Your task to perform on an android device: Open the calendar and show me this week's events? Image 0: 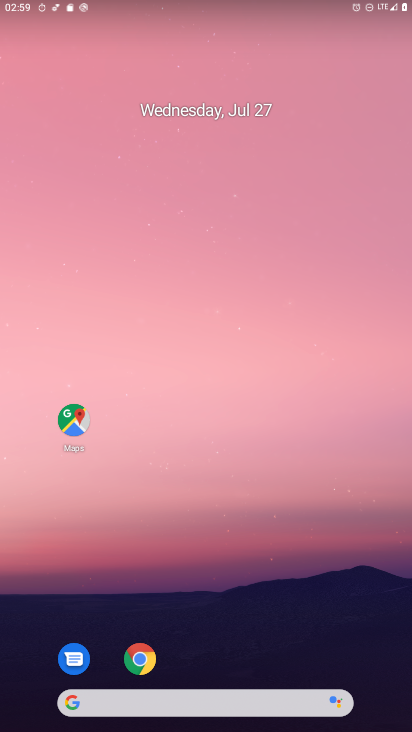
Step 0: drag from (324, 613) to (306, 53)
Your task to perform on an android device: Open the calendar and show me this week's events? Image 1: 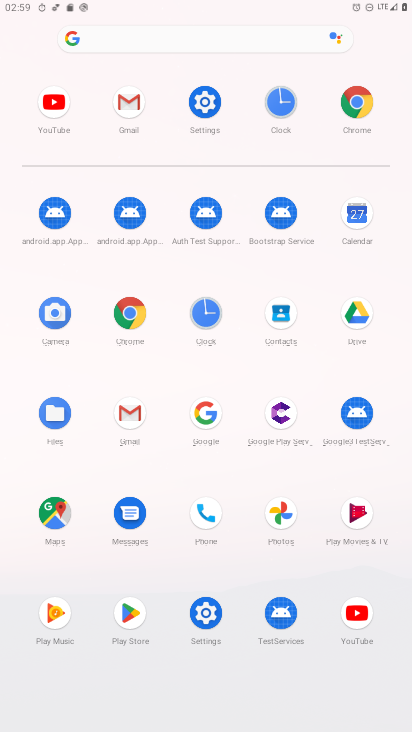
Step 1: click (358, 222)
Your task to perform on an android device: Open the calendar and show me this week's events? Image 2: 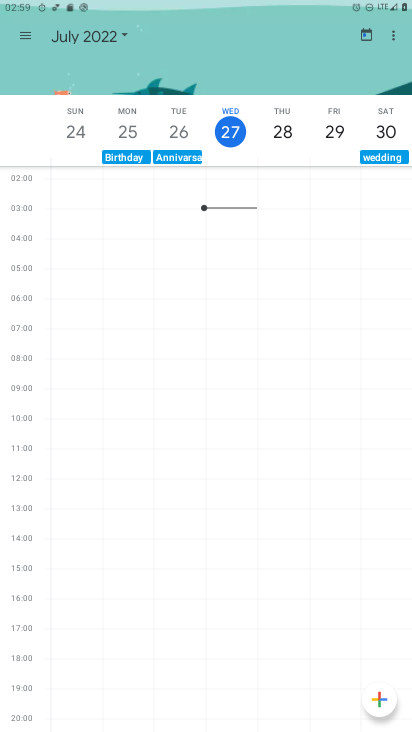
Step 2: task complete